Your task to perform on an android device: open device folders in google photos Image 0: 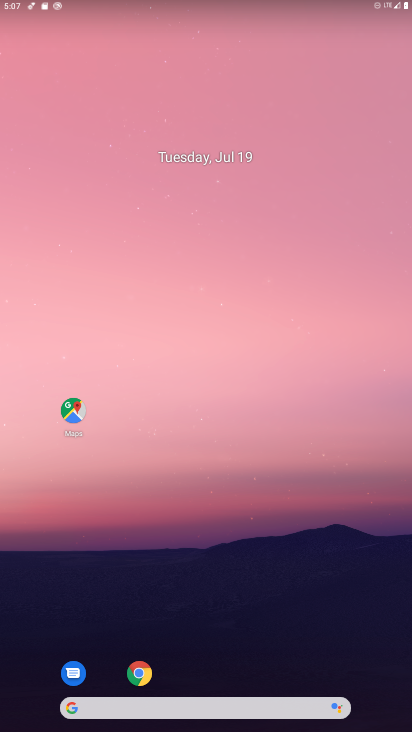
Step 0: press home button
Your task to perform on an android device: open device folders in google photos Image 1: 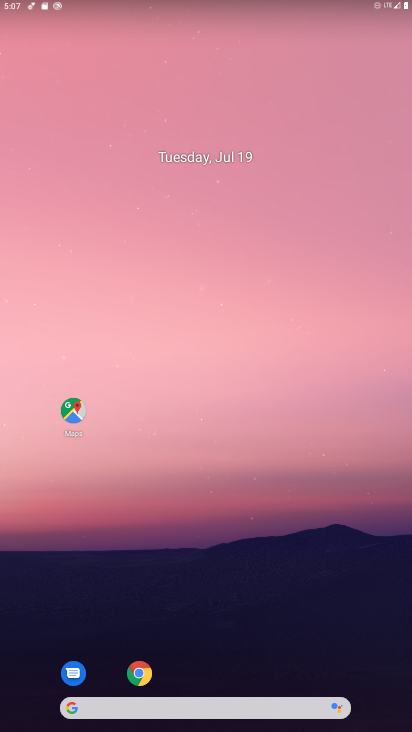
Step 1: drag from (206, 676) to (268, 22)
Your task to perform on an android device: open device folders in google photos Image 2: 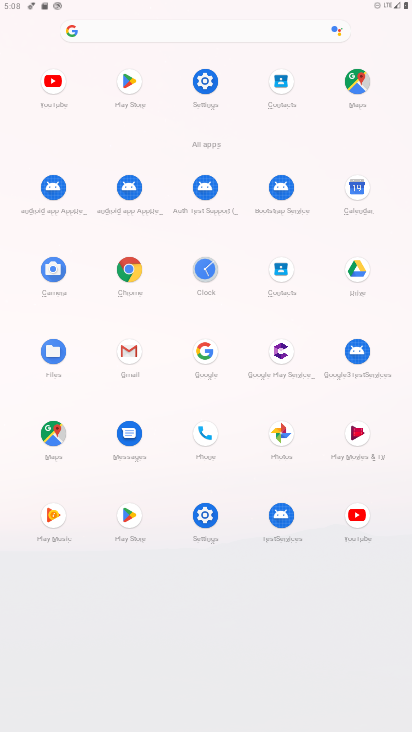
Step 2: click (278, 430)
Your task to perform on an android device: open device folders in google photos Image 3: 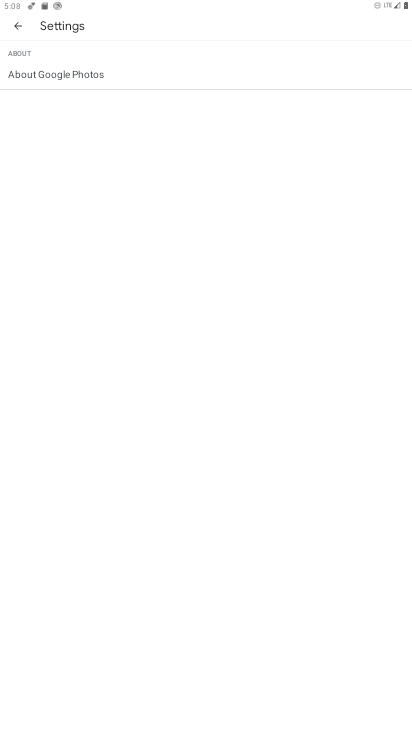
Step 3: click (18, 26)
Your task to perform on an android device: open device folders in google photos Image 4: 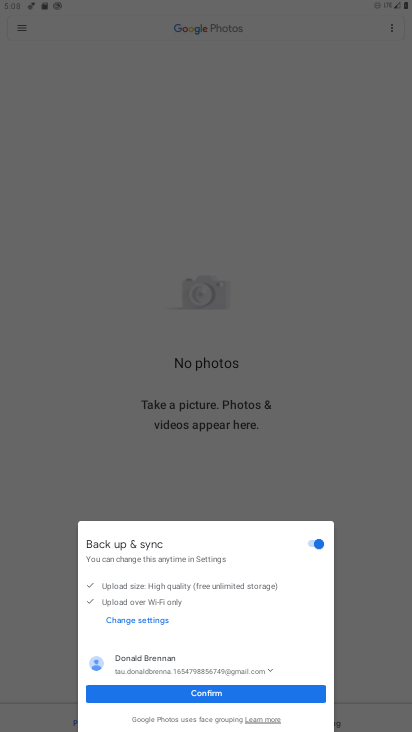
Step 4: click (203, 693)
Your task to perform on an android device: open device folders in google photos Image 5: 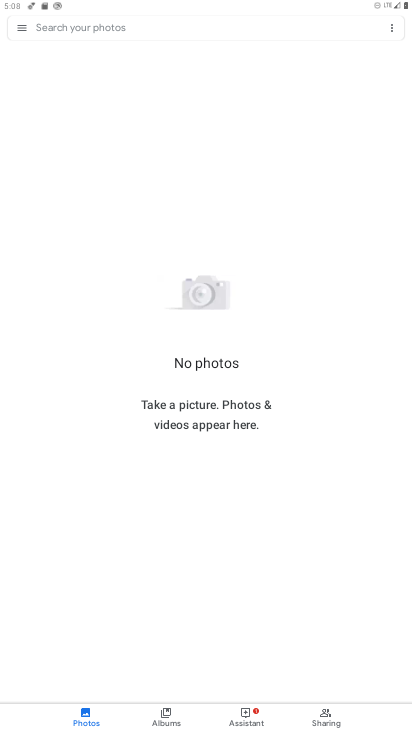
Step 5: click (18, 30)
Your task to perform on an android device: open device folders in google photos Image 6: 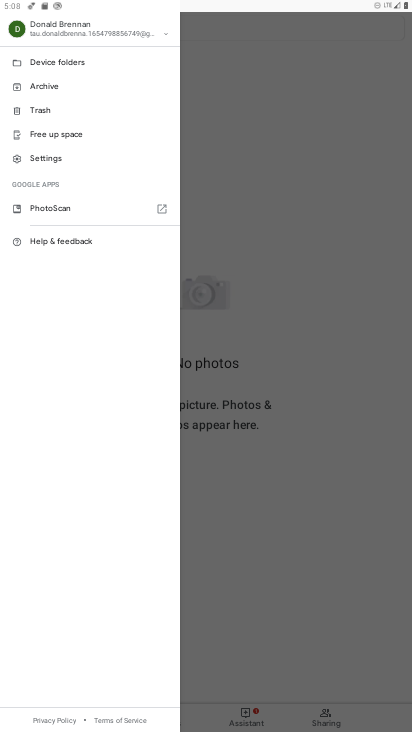
Step 6: click (60, 56)
Your task to perform on an android device: open device folders in google photos Image 7: 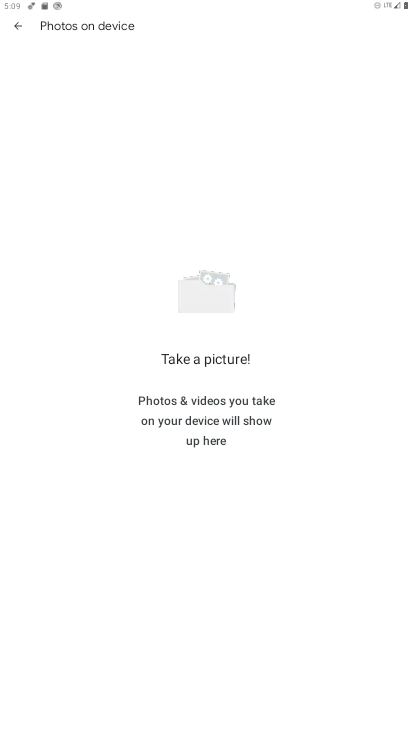
Step 7: task complete